Your task to perform on an android device: Go to accessibility settings Image 0: 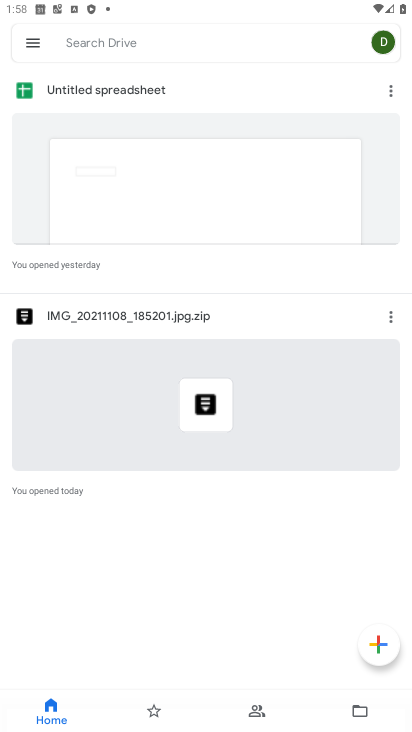
Step 0: press home button
Your task to perform on an android device: Go to accessibility settings Image 1: 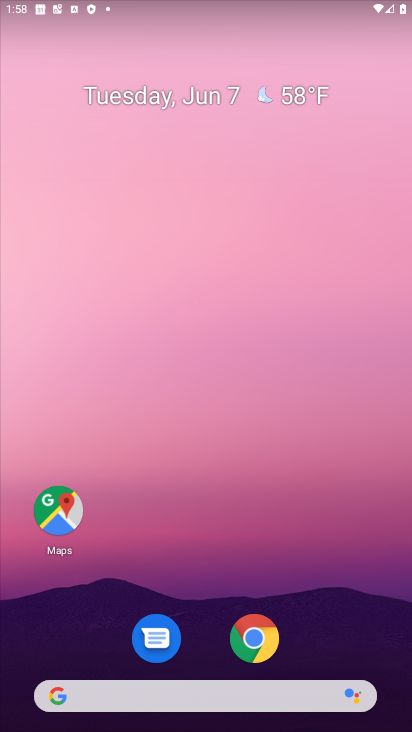
Step 1: drag from (199, 649) to (280, 293)
Your task to perform on an android device: Go to accessibility settings Image 2: 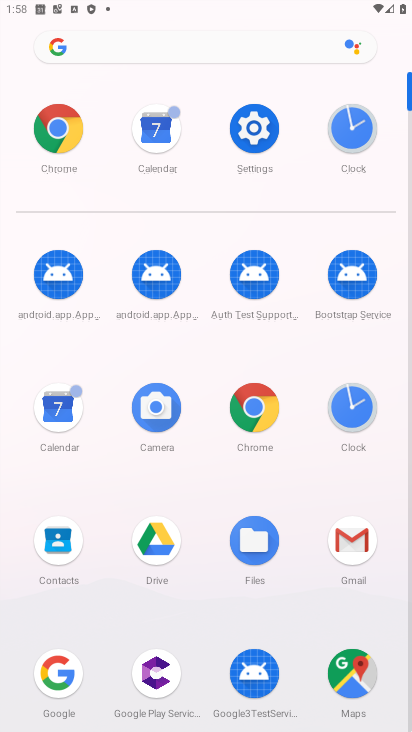
Step 2: click (249, 126)
Your task to perform on an android device: Go to accessibility settings Image 3: 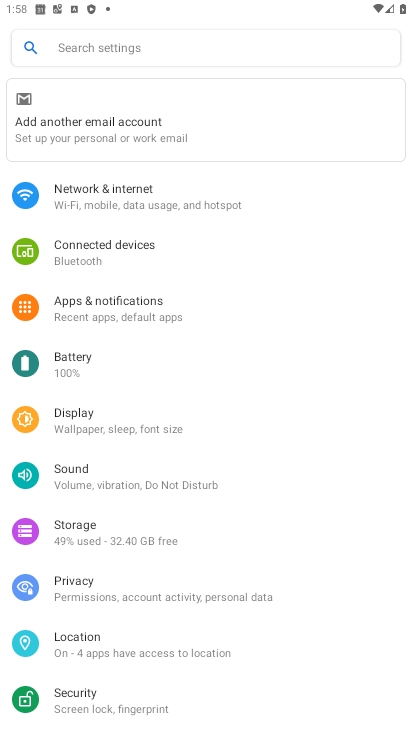
Step 3: drag from (139, 600) to (206, 284)
Your task to perform on an android device: Go to accessibility settings Image 4: 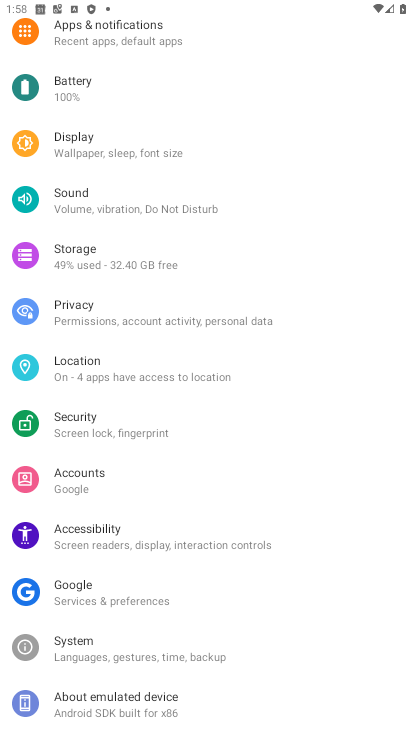
Step 4: click (93, 529)
Your task to perform on an android device: Go to accessibility settings Image 5: 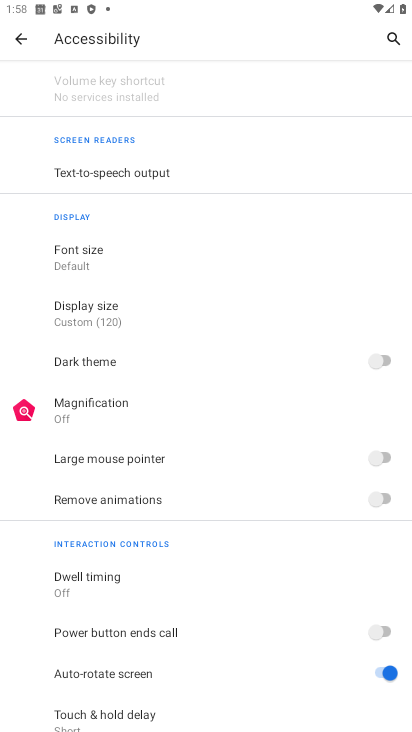
Step 5: task complete